Your task to perform on an android device: check android version Image 0: 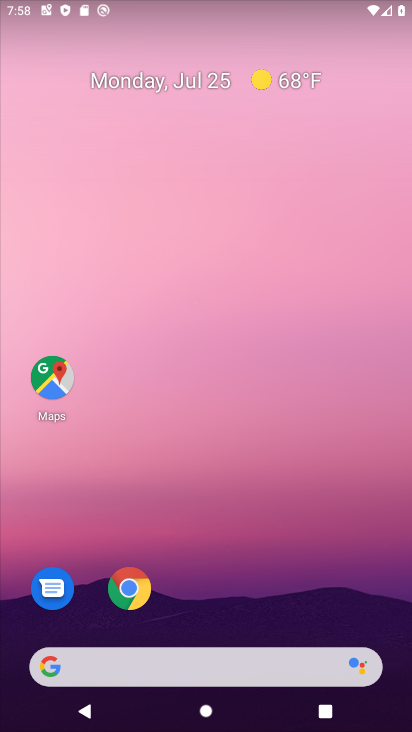
Step 0: press home button
Your task to perform on an android device: check android version Image 1: 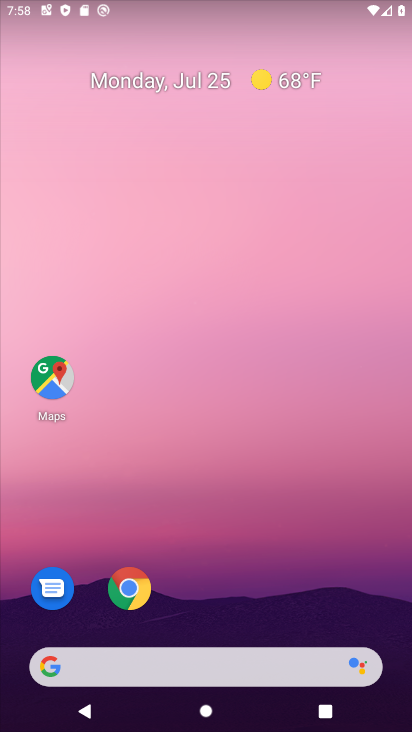
Step 1: drag from (372, 574) to (353, 56)
Your task to perform on an android device: check android version Image 2: 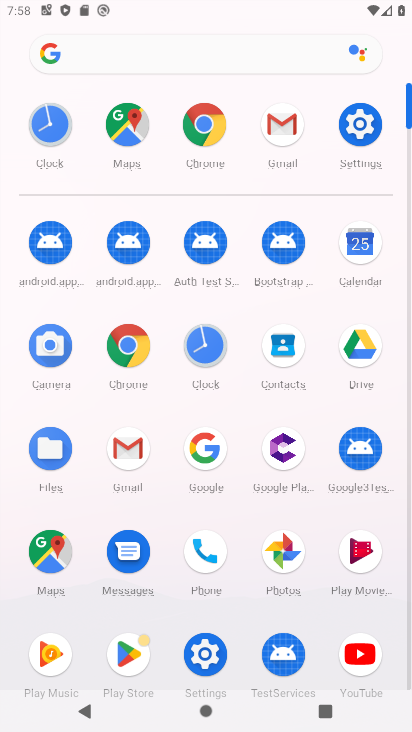
Step 2: click (357, 127)
Your task to perform on an android device: check android version Image 3: 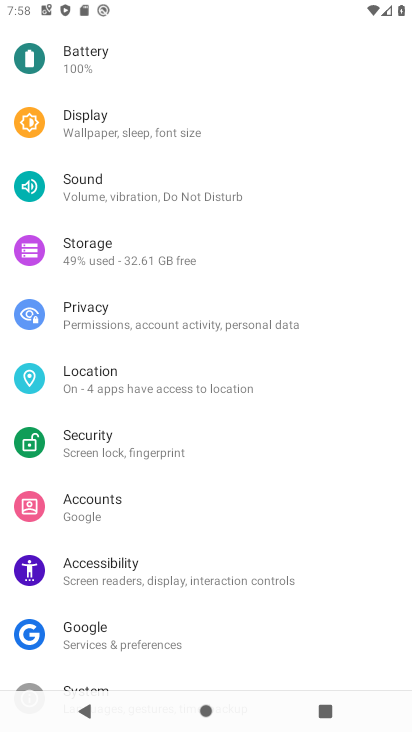
Step 3: drag from (327, 399) to (332, 351)
Your task to perform on an android device: check android version Image 4: 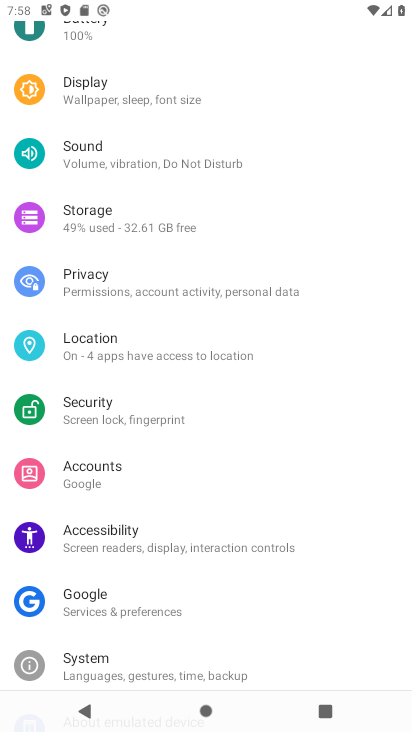
Step 4: drag from (355, 194) to (356, 291)
Your task to perform on an android device: check android version Image 5: 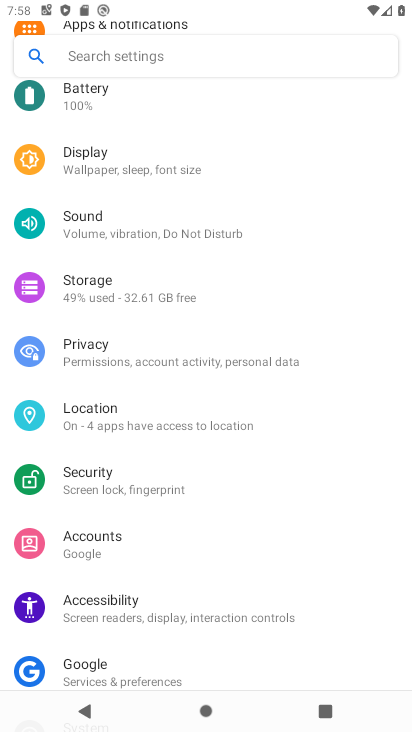
Step 5: drag from (325, 224) to (321, 353)
Your task to perform on an android device: check android version Image 6: 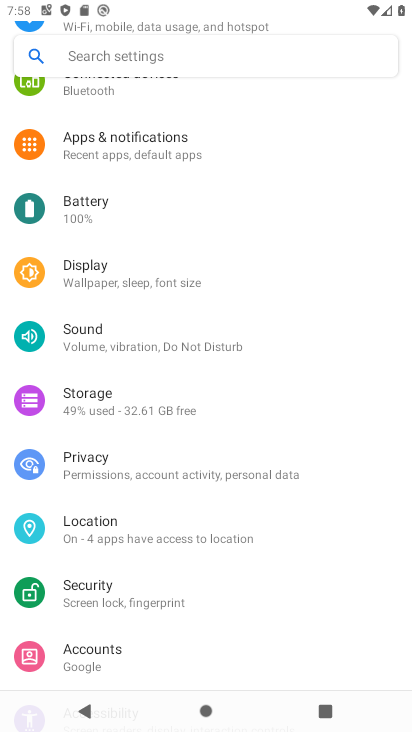
Step 6: drag from (347, 178) to (343, 340)
Your task to perform on an android device: check android version Image 7: 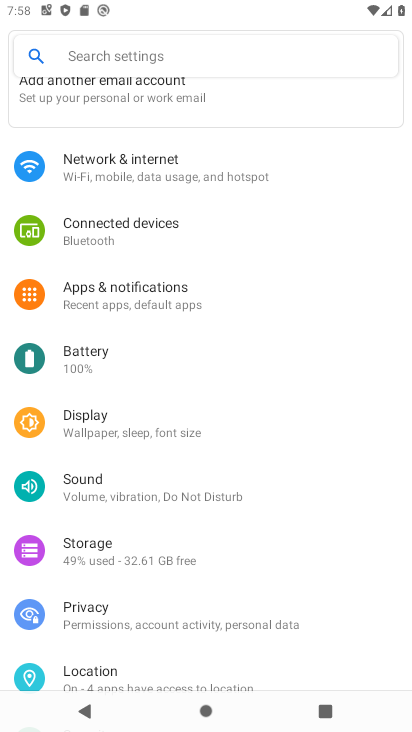
Step 7: drag from (351, 157) to (354, 342)
Your task to perform on an android device: check android version Image 8: 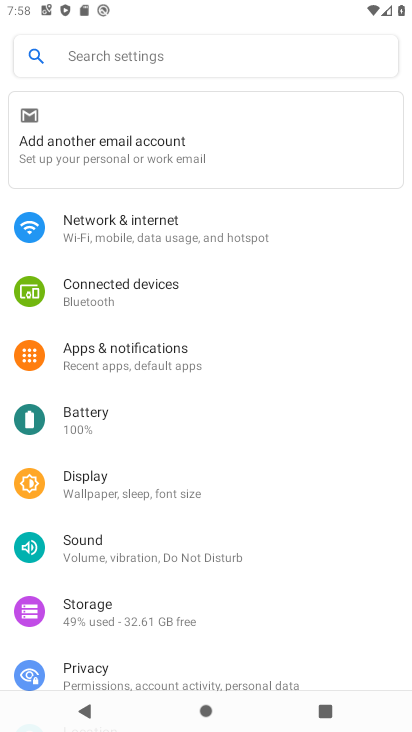
Step 8: drag from (353, 417) to (353, 312)
Your task to perform on an android device: check android version Image 9: 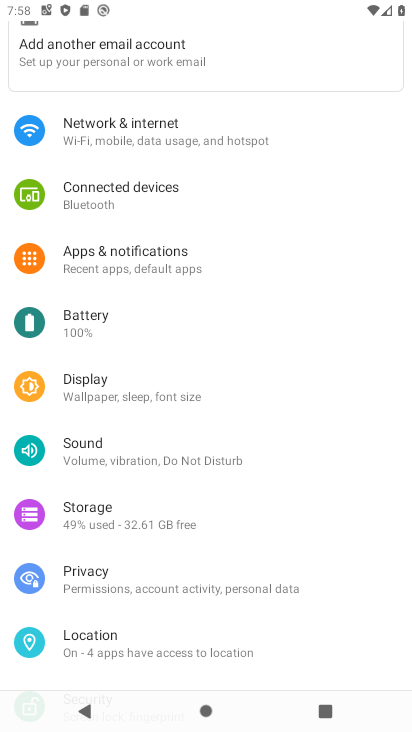
Step 9: drag from (333, 430) to (341, 296)
Your task to perform on an android device: check android version Image 10: 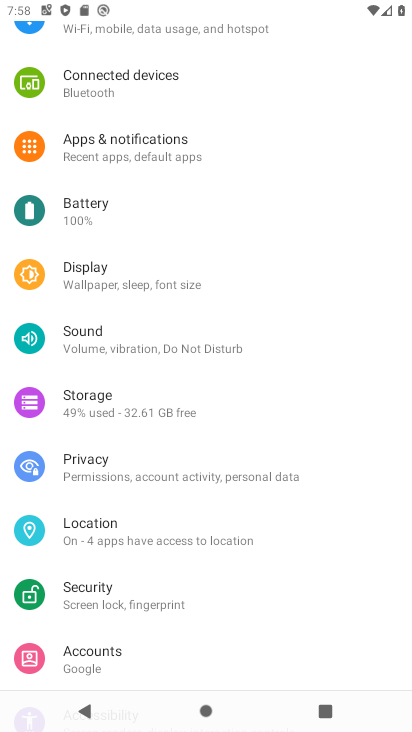
Step 10: drag from (318, 407) to (311, 300)
Your task to perform on an android device: check android version Image 11: 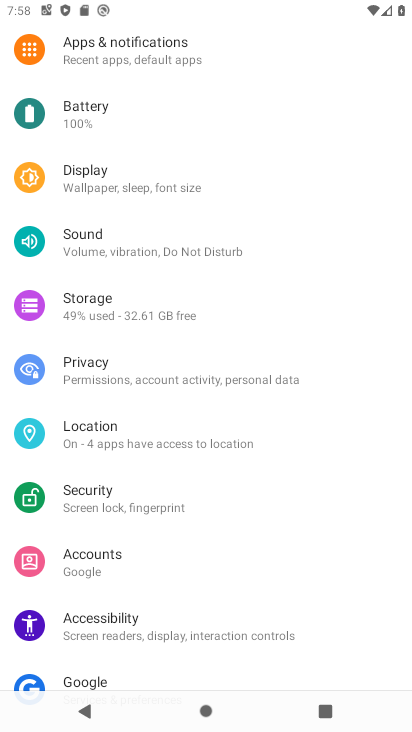
Step 11: drag from (295, 404) to (300, 281)
Your task to perform on an android device: check android version Image 12: 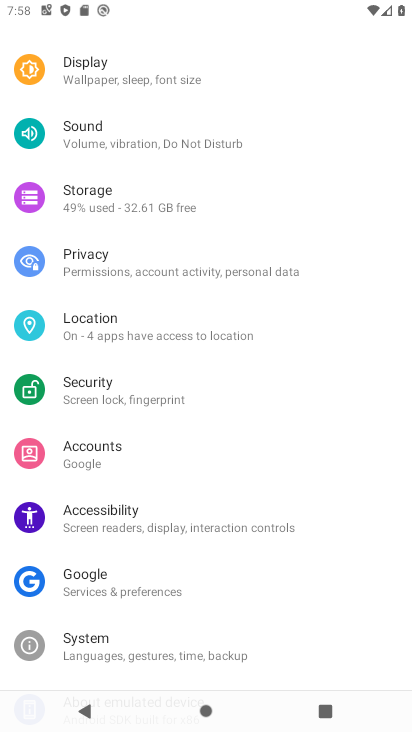
Step 12: drag from (307, 530) to (310, 366)
Your task to perform on an android device: check android version Image 13: 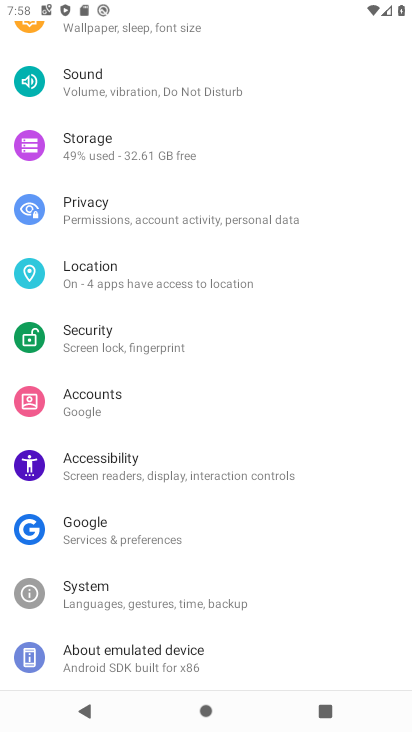
Step 13: click (277, 598)
Your task to perform on an android device: check android version Image 14: 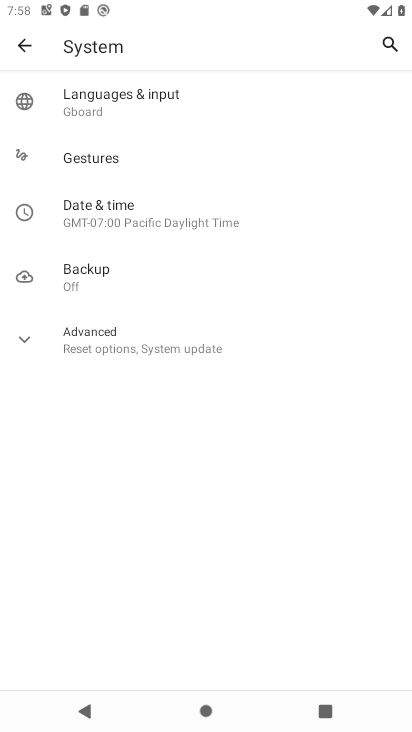
Step 14: click (237, 343)
Your task to perform on an android device: check android version Image 15: 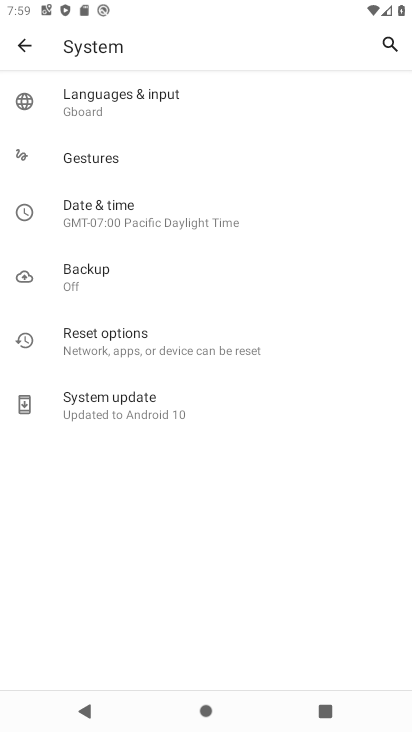
Step 15: click (209, 398)
Your task to perform on an android device: check android version Image 16: 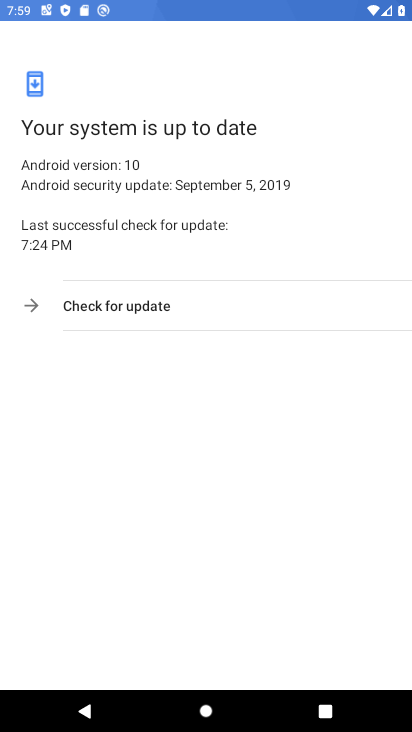
Step 16: task complete